Your task to perform on an android device: Open Amazon Image 0: 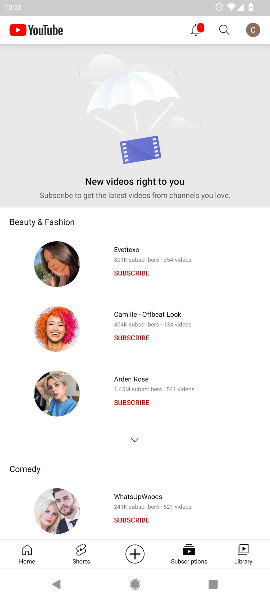
Step 0: press home button
Your task to perform on an android device: Open Amazon Image 1: 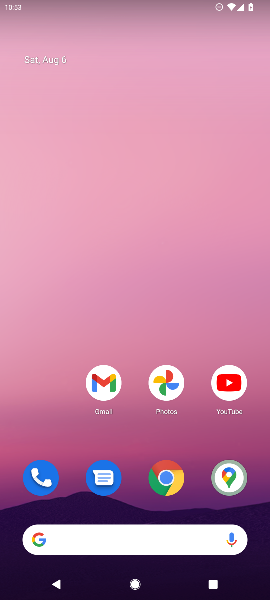
Step 1: click (168, 480)
Your task to perform on an android device: Open Amazon Image 2: 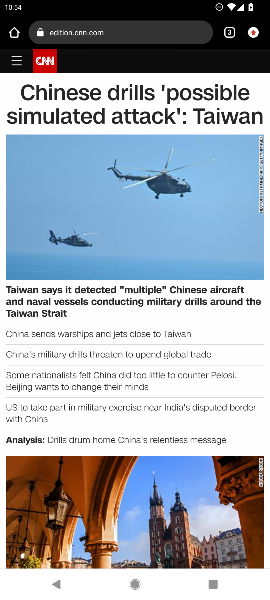
Step 2: drag from (256, 32) to (166, 101)
Your task to perform on an android device: Open Amazon Image 3: 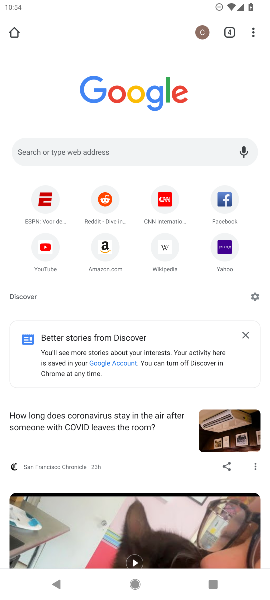
Step 3: click (104, 248)
Your task to perform on an android device: Open Amazon Image 4: 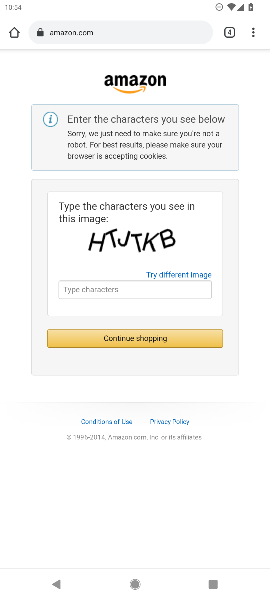
Step 4: task complete